Your task to perform on an android device: Go to sound settings Image 0: 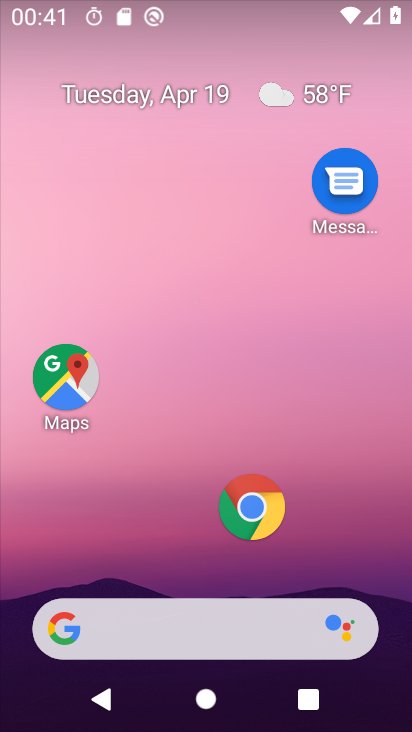
Step 0: drag from (212, 544) to (284, 14)
Your task to perform on an android device: Go to sound settings Image 1: 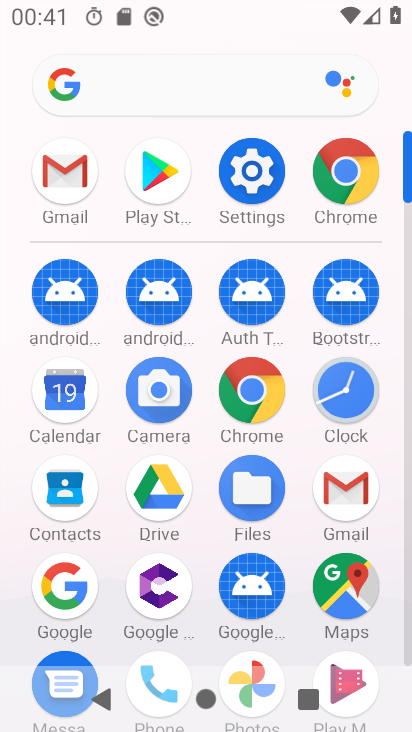
Step 1: click (260, 211)
Your task to perform on an android device: Go to sound settings Image 2: 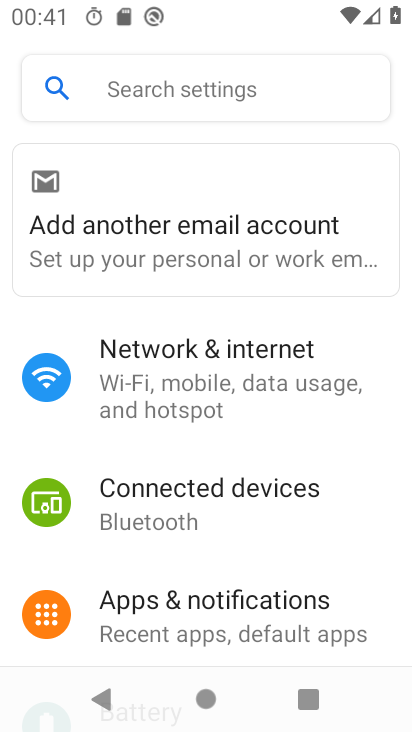
Step 2: drag from (205, 545) to (273, 126)
Your task to perform on an android device: Go to sound settings Image 3: 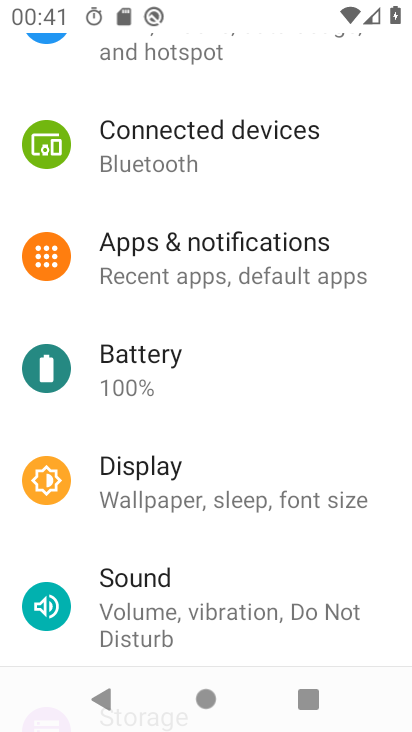
Step 3: drag from (208, 517) to (264, 178)
Your task to perform on an android device: Go to sound settings Image 4: 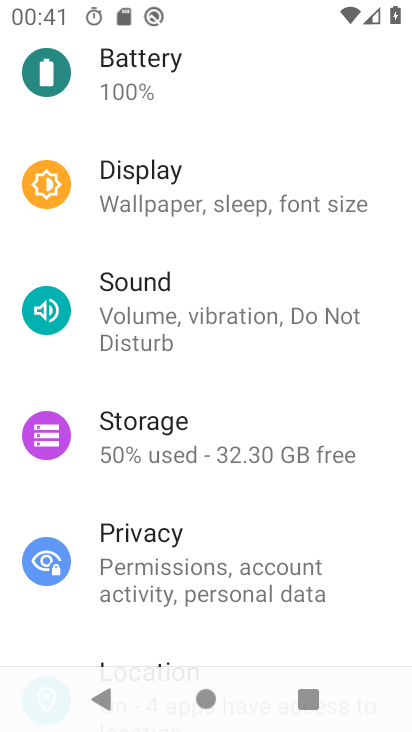
Step 4: click (183, 304)
Your task to perform on an android device: Go to sound settings Image 5: 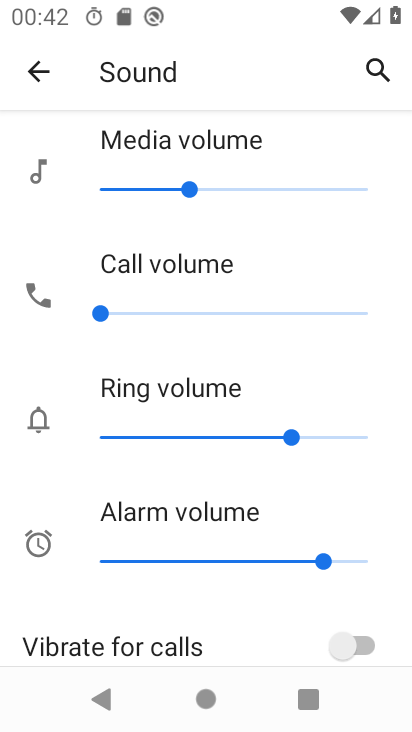
Step 5: task complete